Your task to perform on an android device: Open Google Chrome Image 0: 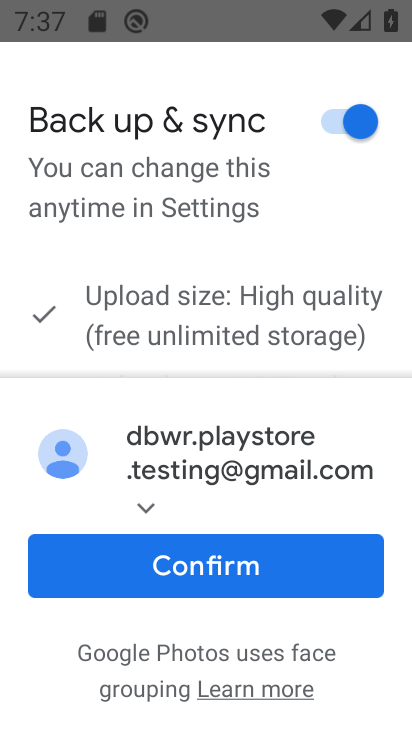
Step 0: click (157, 559)
Your task to perform on an android device: Open Google Chrome Image 1: 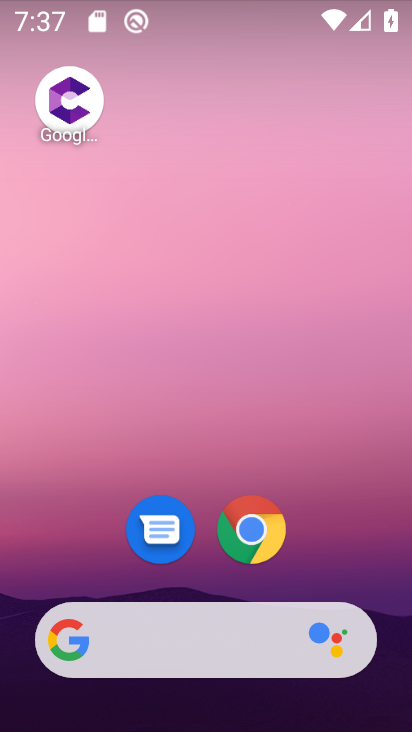
Step 1: click (257, 529)
Your task to perform on an android device: Open Google Chrome Image 2: 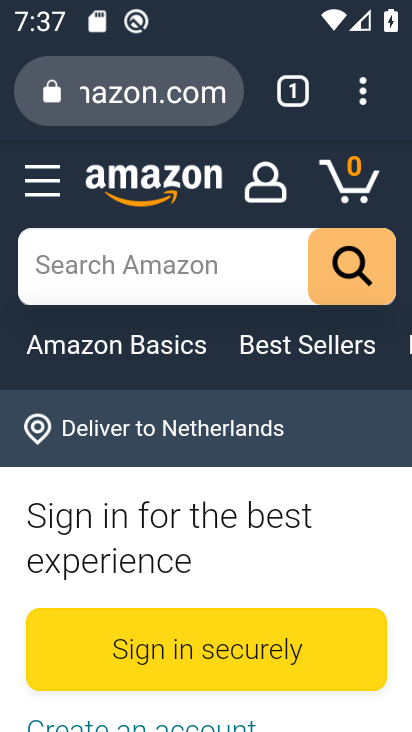
Step 2: task complete